Your task to perform on an android device: open device folders in google photos Image 0: 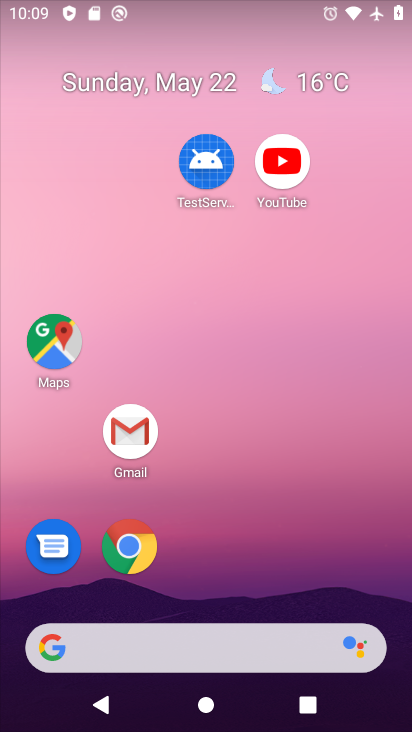
Step 0: drag from (380, 720) to (275, 155)
Your task to perform on an android device: open device folders in google photos Image 1: 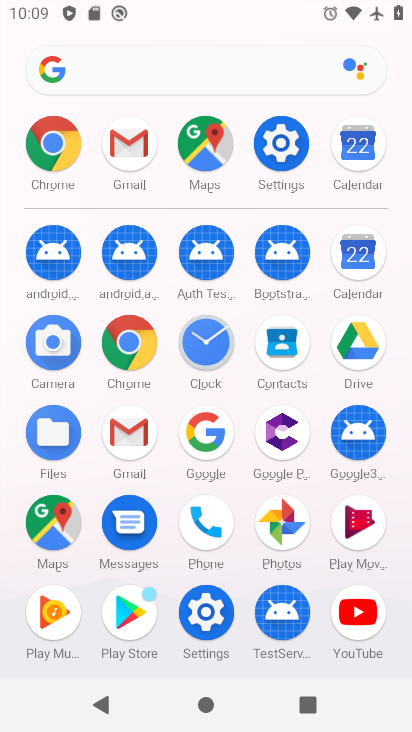
Step 1: click (268, 527)
Your task to perform on an android device: open device folders in google photos Image 2: 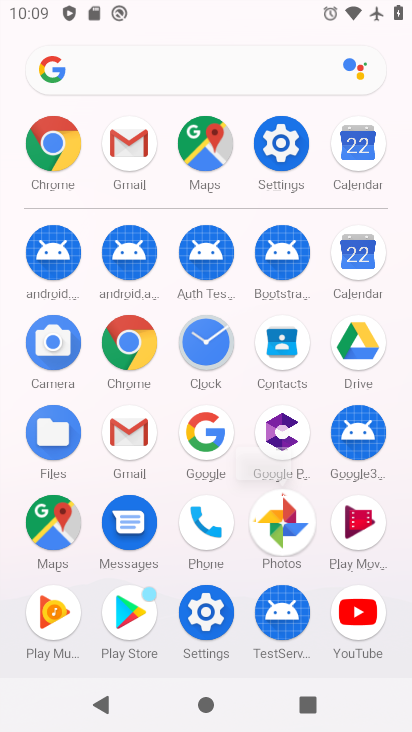
Step 2: click (278, 526)
Your task to perform on an android device: open device folders in google photos Image 3: 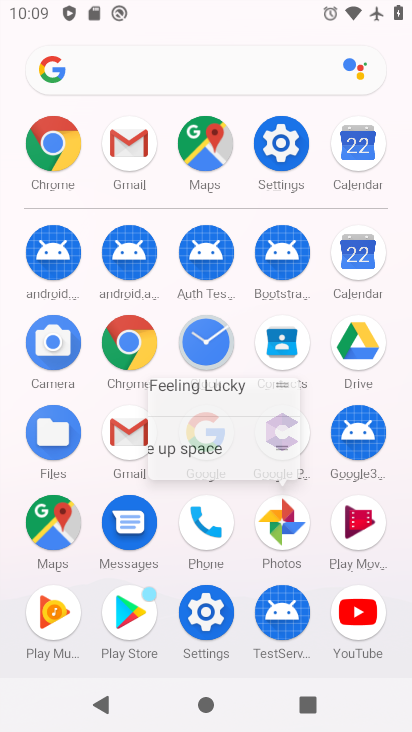
Step 3: click (278, 526)
Your task to perform on an android device: open device folders in google photos Image 4: 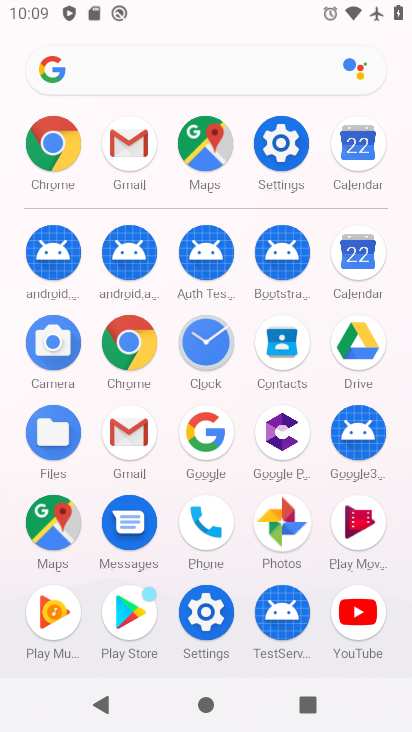
Step 4: click (279, 524)
Your task to perform on an android device: open device folders in google photos Image 5: 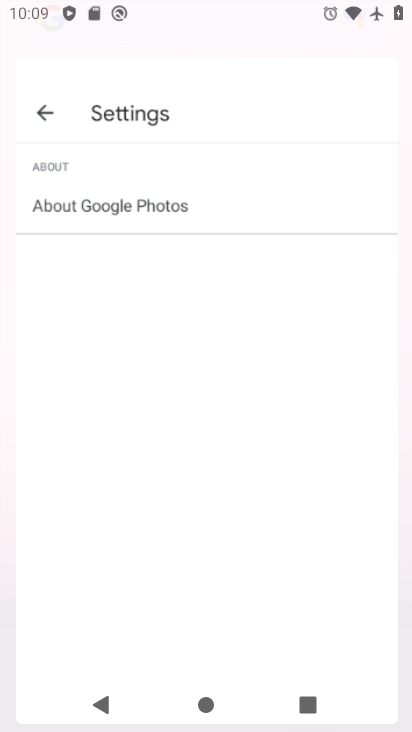
Step 5: click (279, 522)
Your task to perform on an android device: open device folders in google photos Image 6: 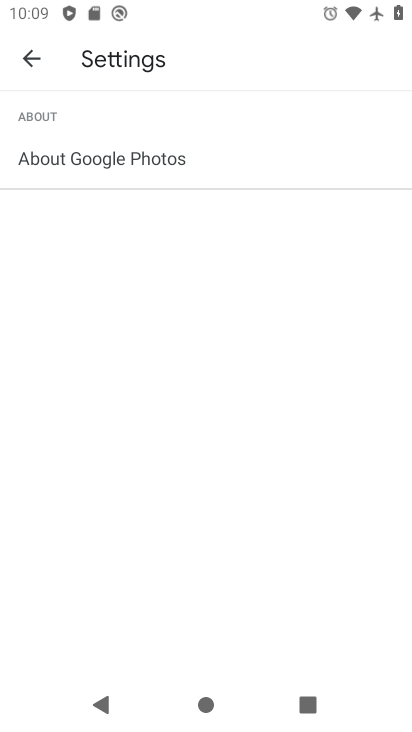
Step 6: click (279, 520)
Your task to perform on an android device: open device folders in google photos Image 7: 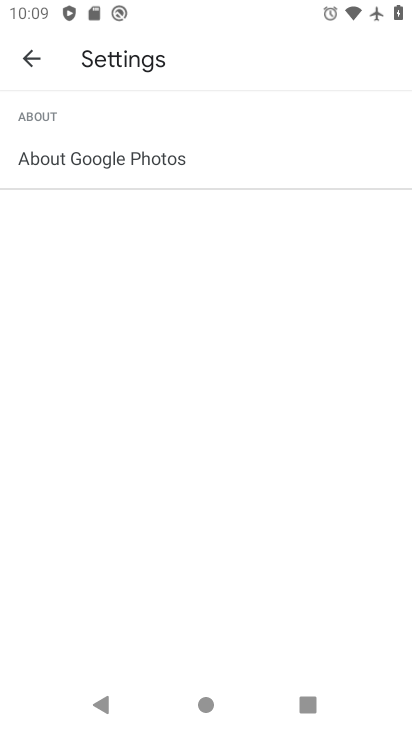
Step 7: click (23, 59)
Your task to perform on an android device: open device folders in google photos Image 8: 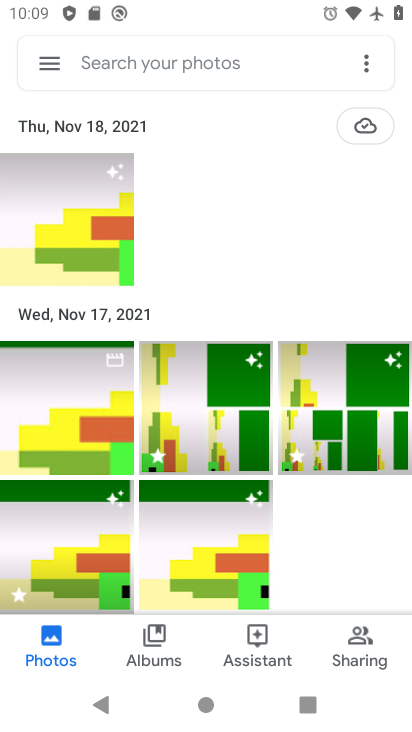
Step 8: click (54, 65)
Your task to perform on an android device: open device folders in google photos Image 9: 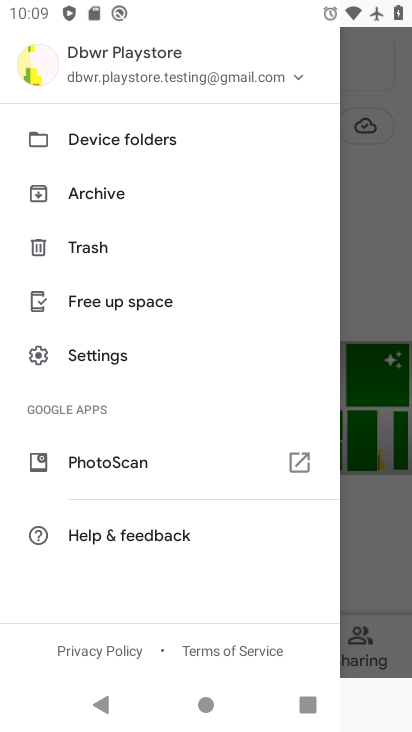
Step 9: click (102, 142)
Your task to perform on an android device: open device folders in google photos Image 10: 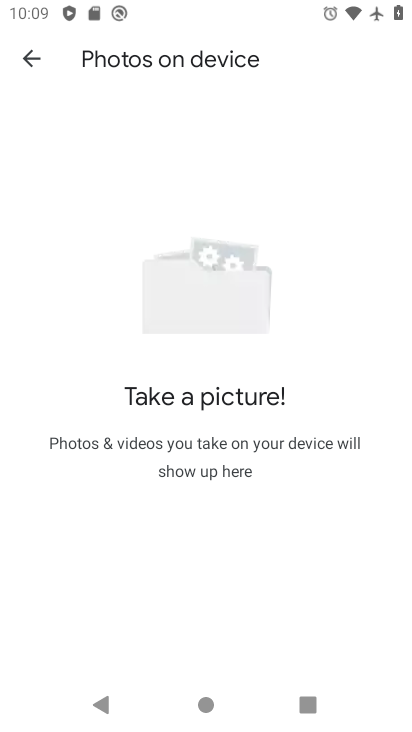
Step 10: task complete